Your task to perform on an android device: allow cookies in the chrome app Image 0: 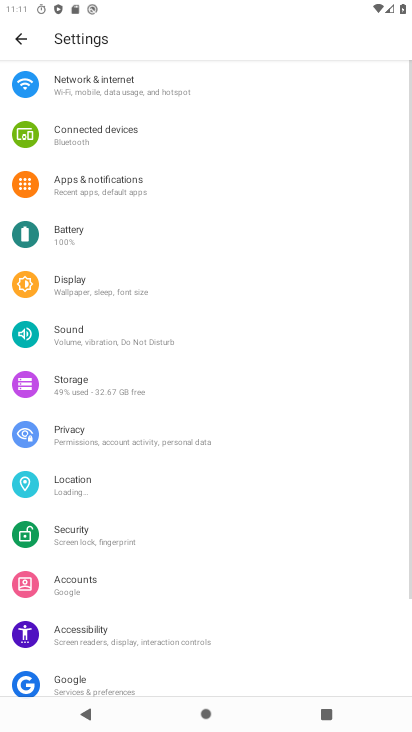
Step 0: press home button
Your task to perform on an android device: allow cookies in the chrome app Image 1: 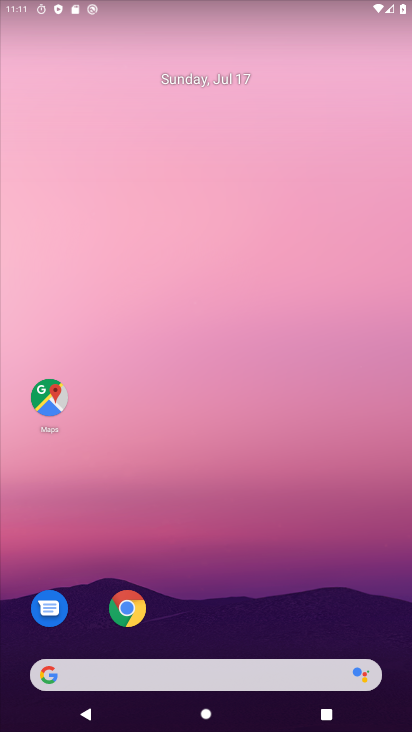
Step 1: click (130, 605)
Your task to perform on an android device: allow cookies in the chrome app Image 2: 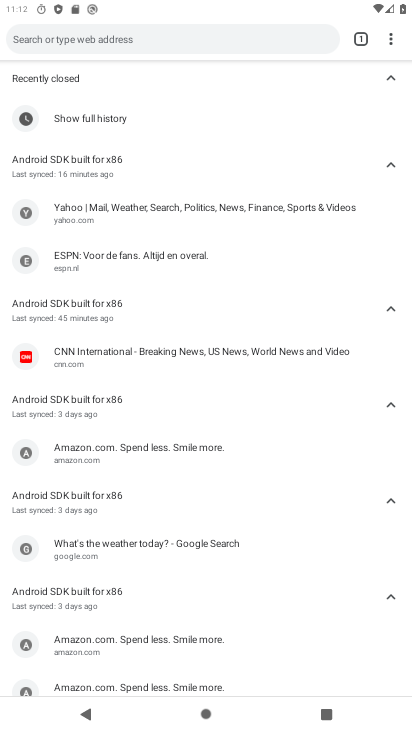
Step 2: click (388, 34)
Your task to perform on an android device: allow cookies in the chrome app Image 3: 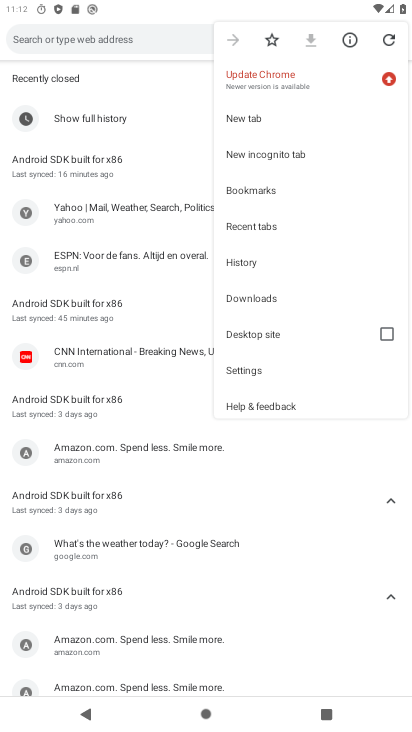
Step 3: click (269, 368)
Your task to perform on an android device: allow cookies in the chrome app Image 4: 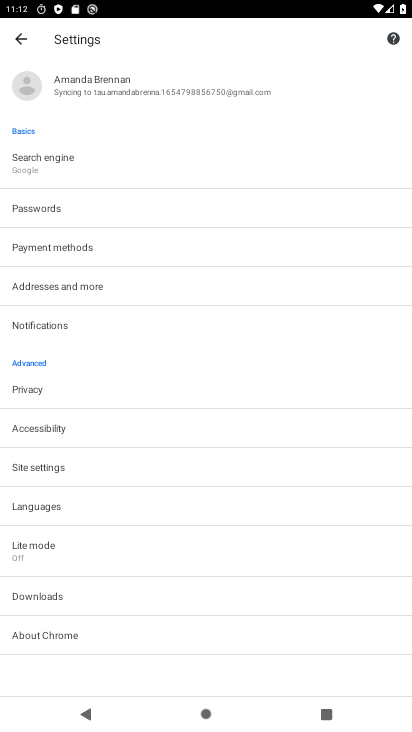
Step 4: click (59, 469)
Your task to perform on an android device: allow cookies in the chrome app Image 5: 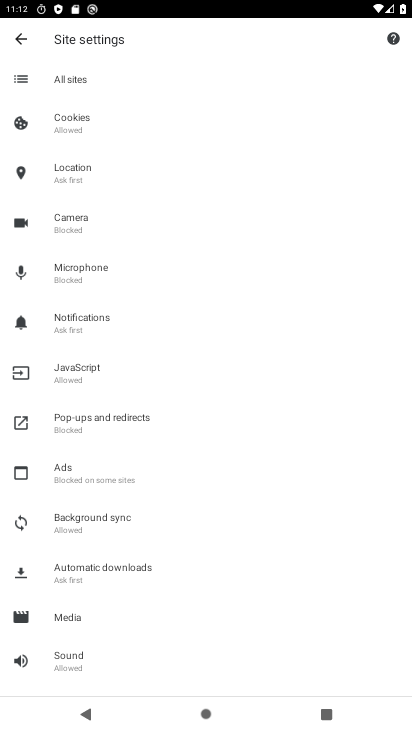
Step 5: click (141, 131)
Your task to perform on an android device: allow cookies in the chrome app Image 6: 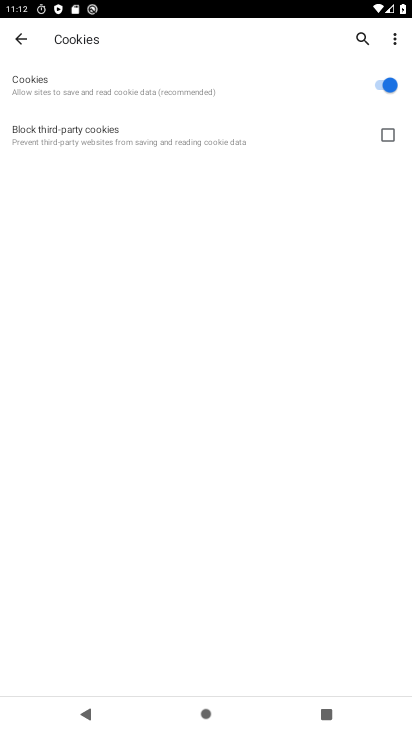
Step 6: task complete